Your task to perform on an android device: check out phone information Image 0: 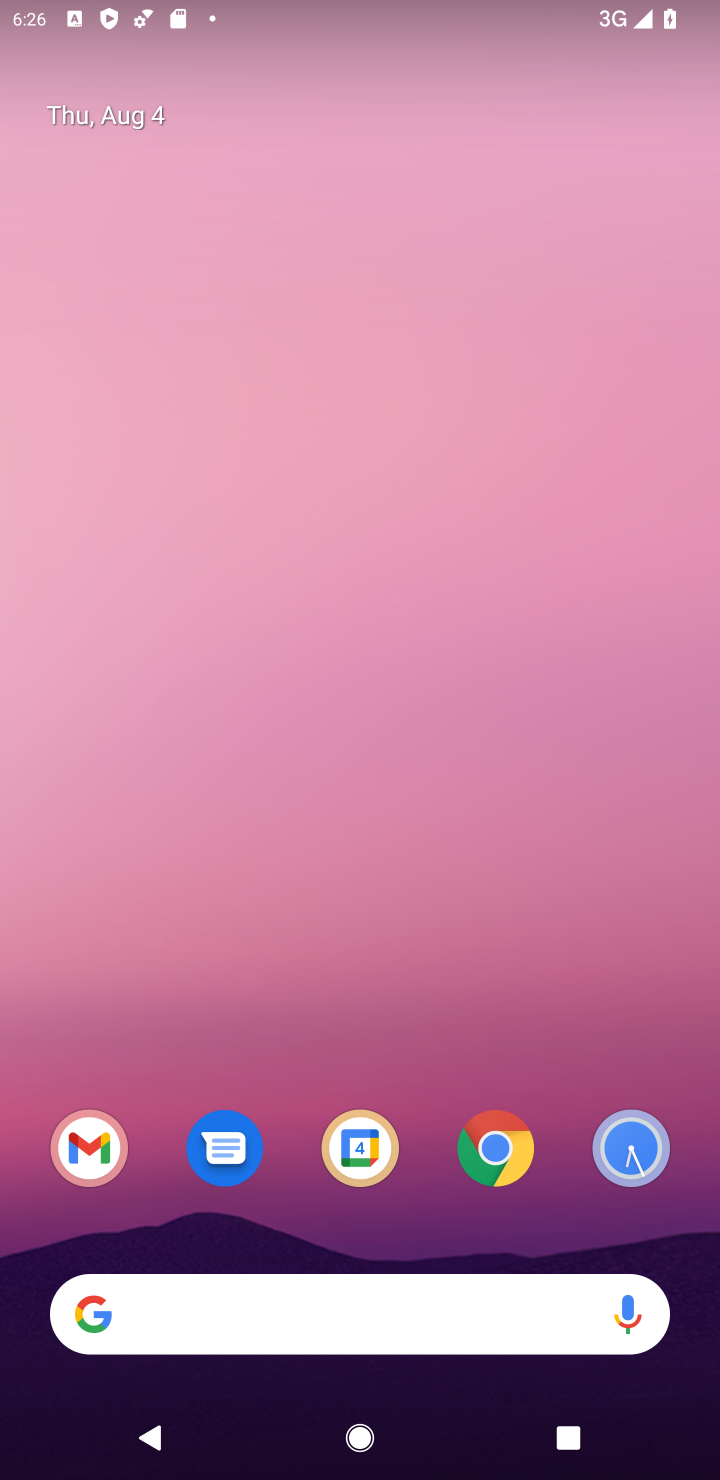
Step 0: drag from (545, 1118) to (513, 158)
Your task to perform on an android device: check out phone information Image 1: 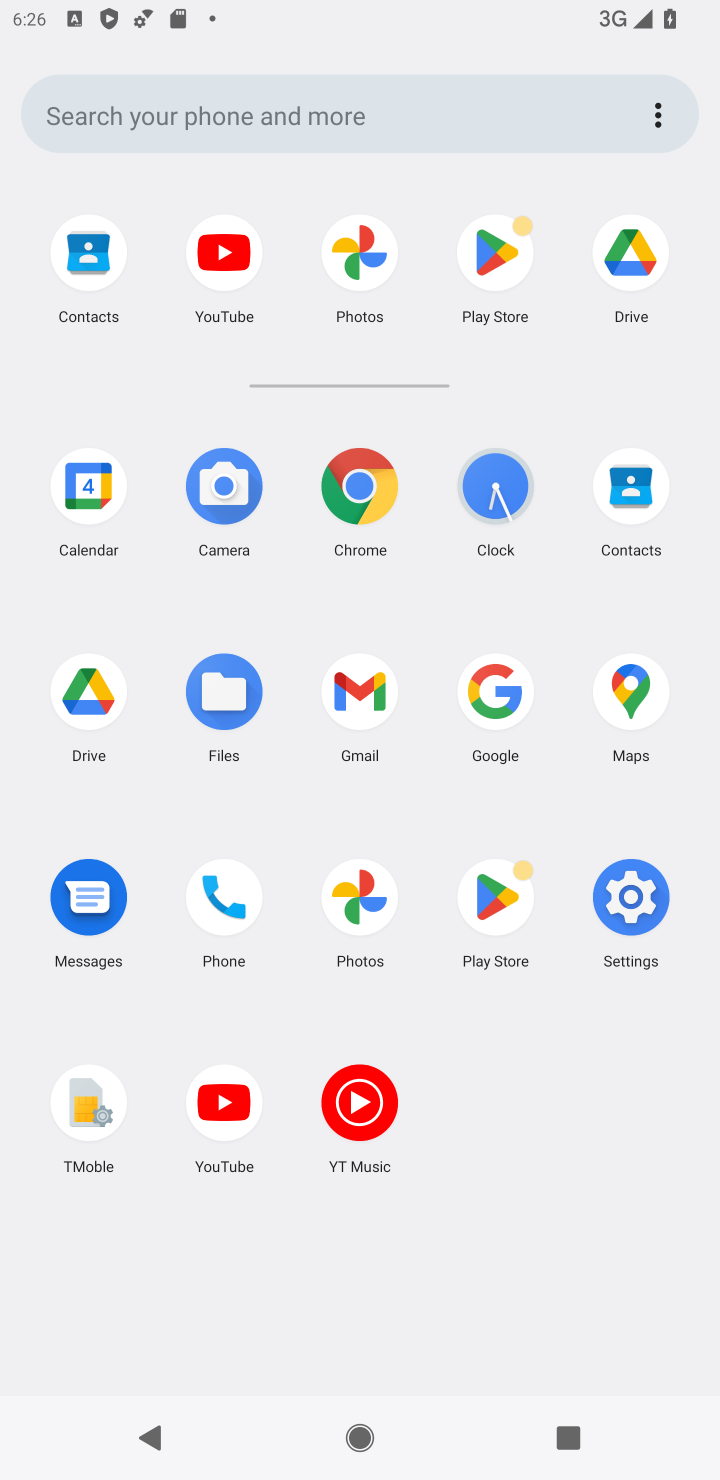
Step 1: click (633, 910)
Your task to perform on an android device: check out phone information Image 2: 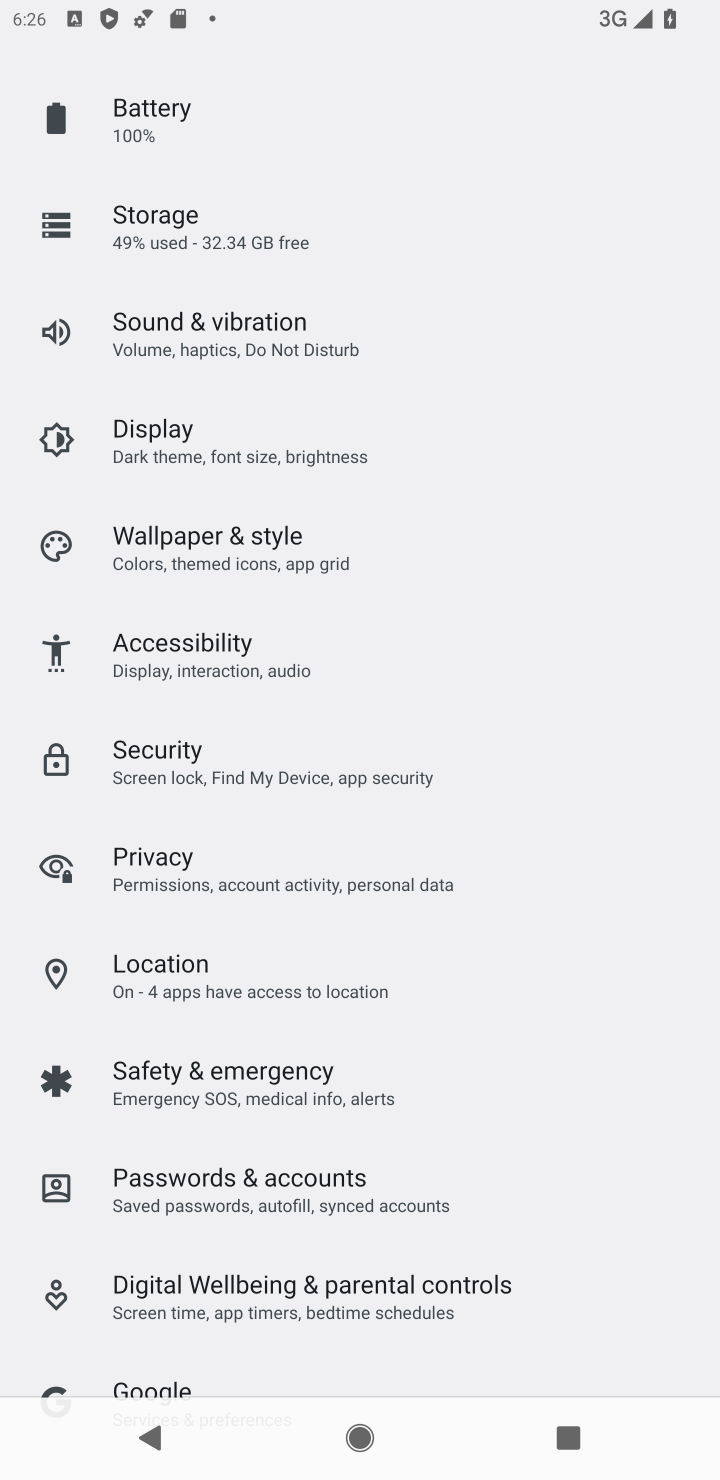
Step 2: drag from (543, 1225) to (488, 518)
Your task to perform on an android device: check out phone information Image 3: 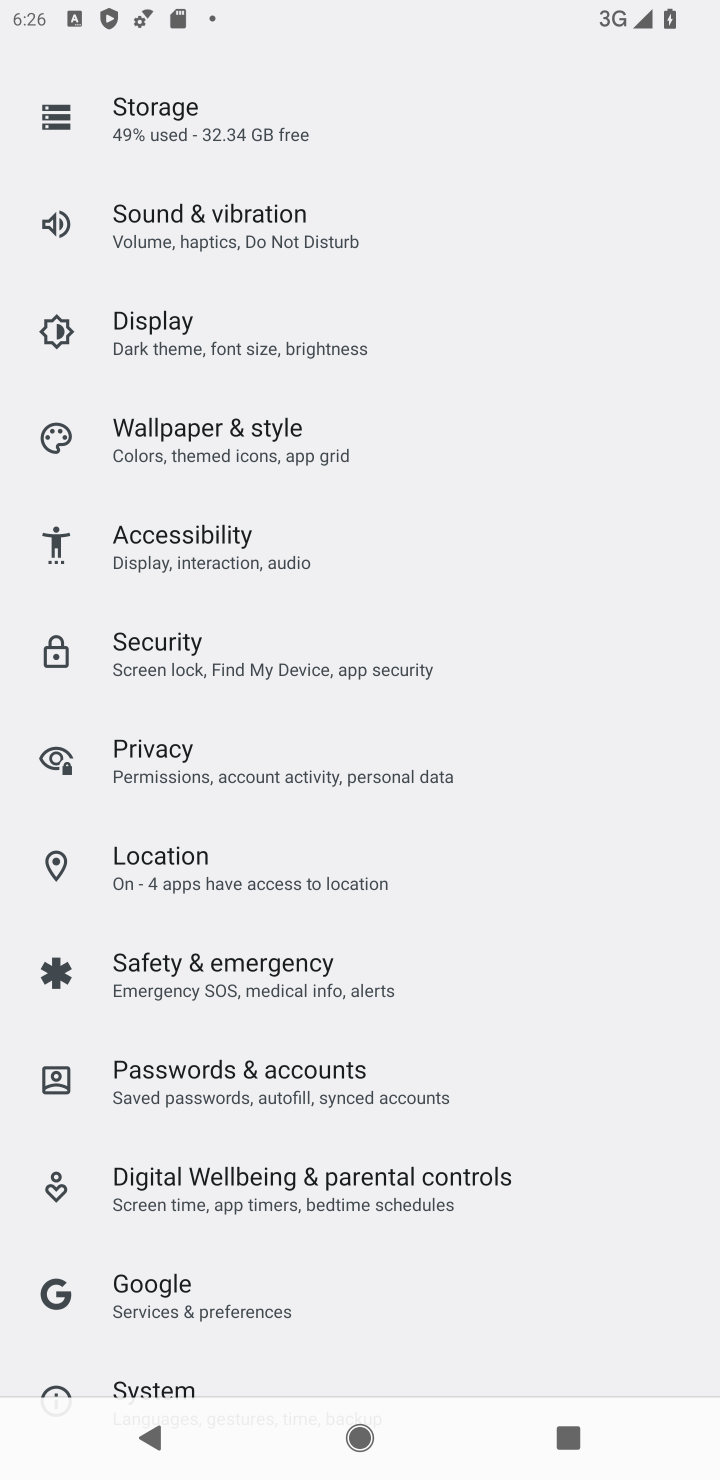
Step 3: drag from (524, 1295) to (472, 463)
Your task to perform on an android device: check out phone information Image 4: 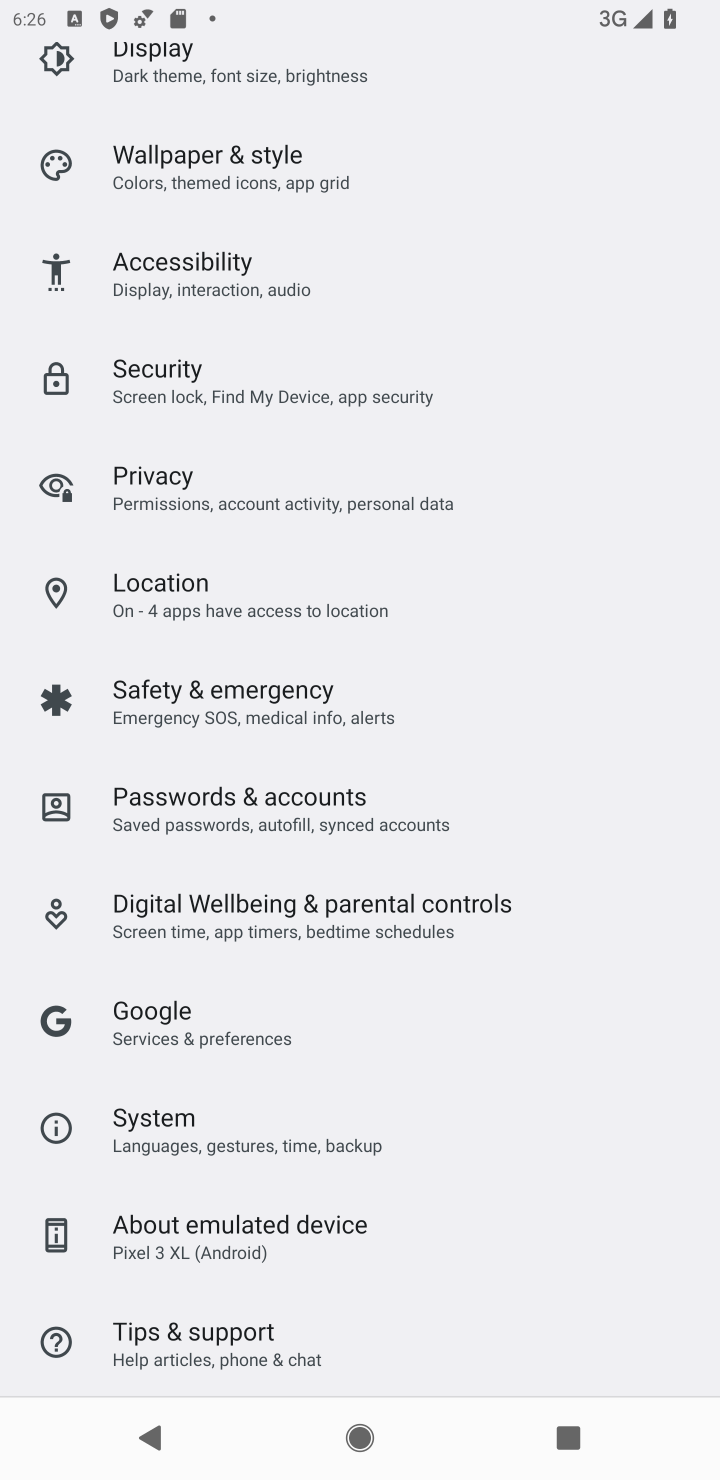
Step 4: click (150, 1221)
Your task to perform on an android device: check out phone information Image 5: 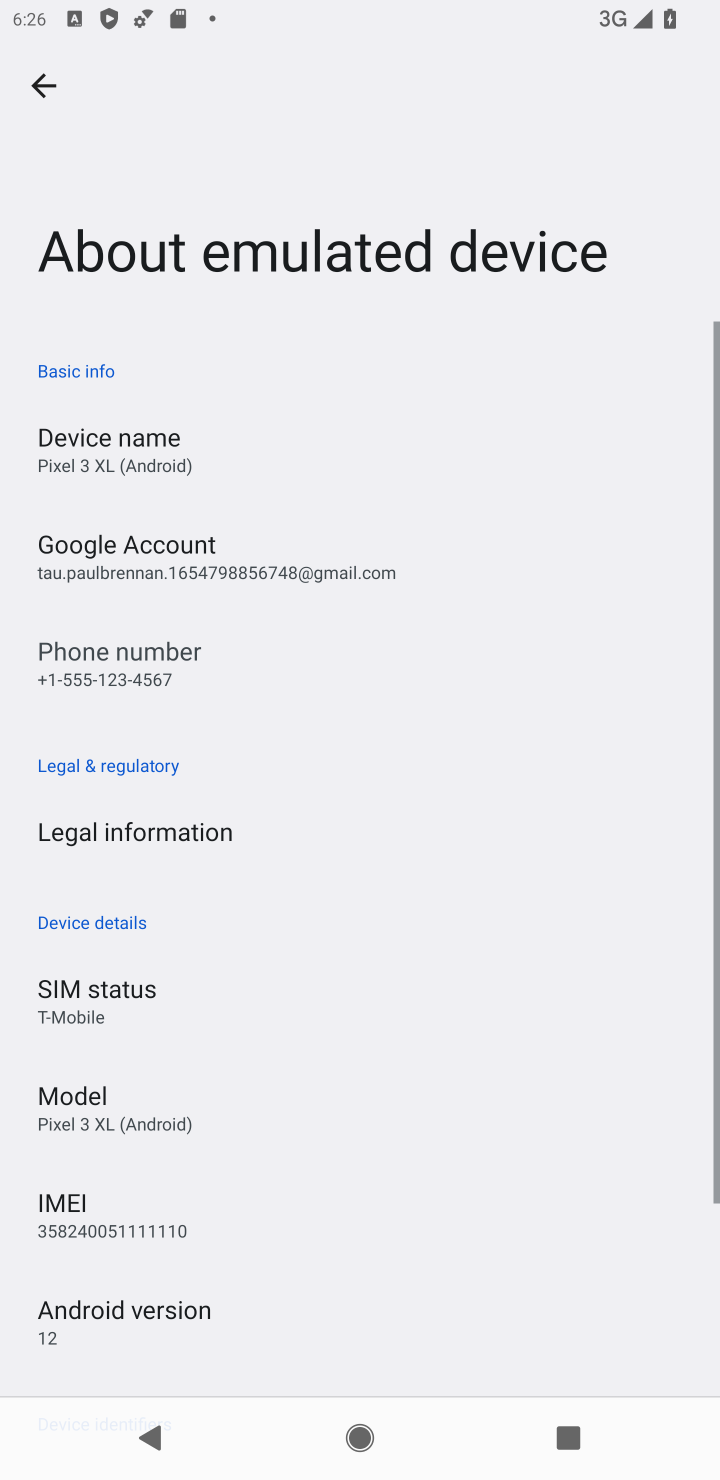
Step 5: task complete